Your task to perform on an android device: turn on wifi Image 0: 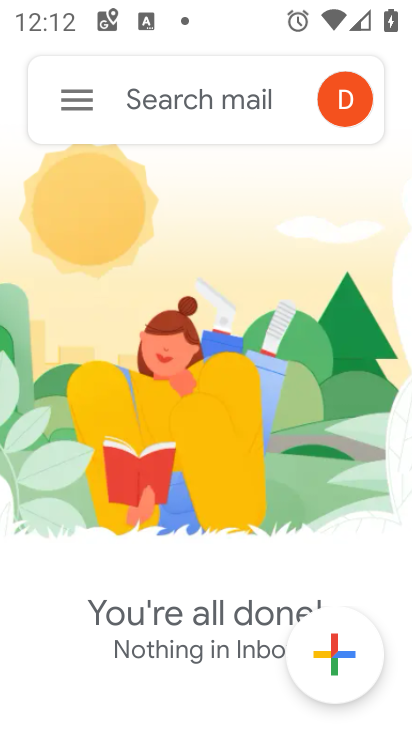
Step 0: press home button
Your task to perform on an android device: turn on wifi Image 1: 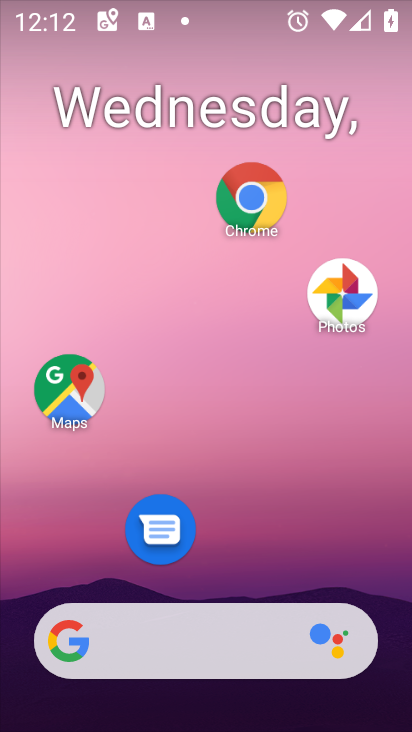
Step 1: drag from (172, 630) to (227, 154)
Your task to perform on an android device: turn on wifi Image 2: 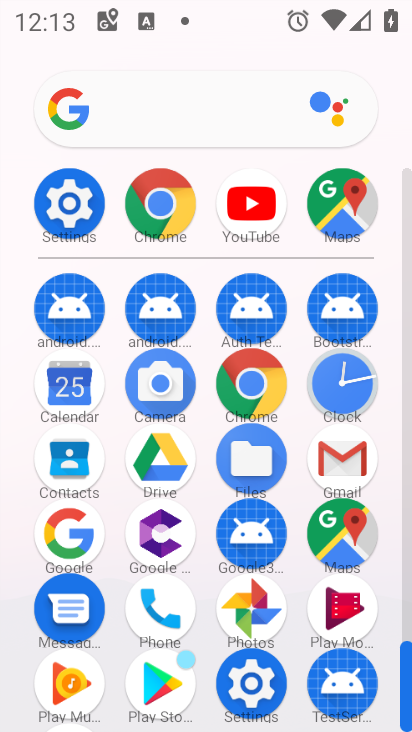
Step 2: click (81, 211)
Your task to perform on an android device: turn on wifi Image 3: 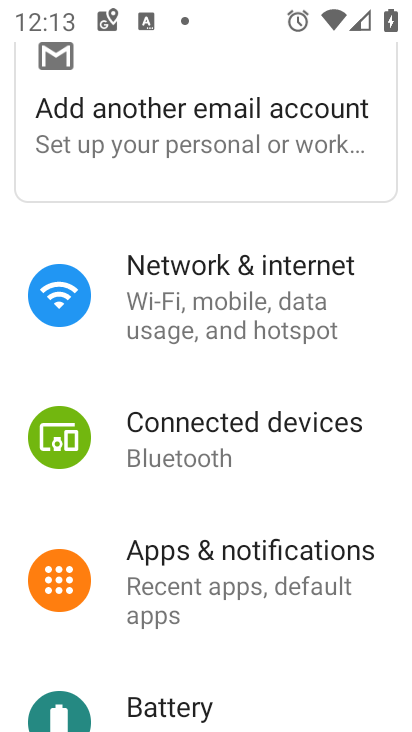
Step 3: click (244, 320)
Your task to perform on an android device: turn on wifi Image 4: 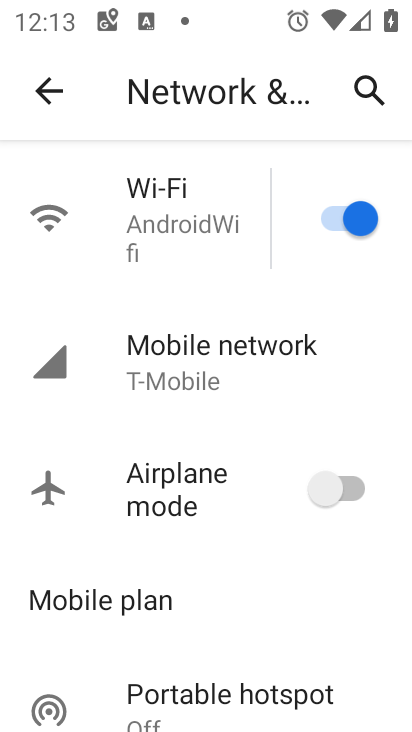
Step 4: task complete